Your task to perform on an android device: open a new tab in the chrome app Image 0: 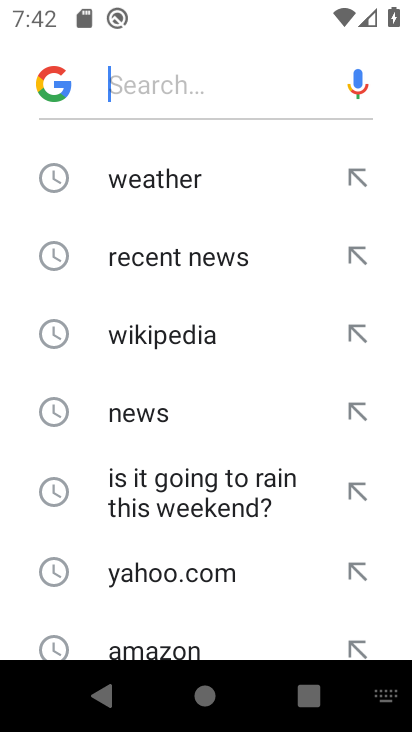
Step 0: press home button
Your task to perform on an android device: open a new tab in the chrome app Image 1: 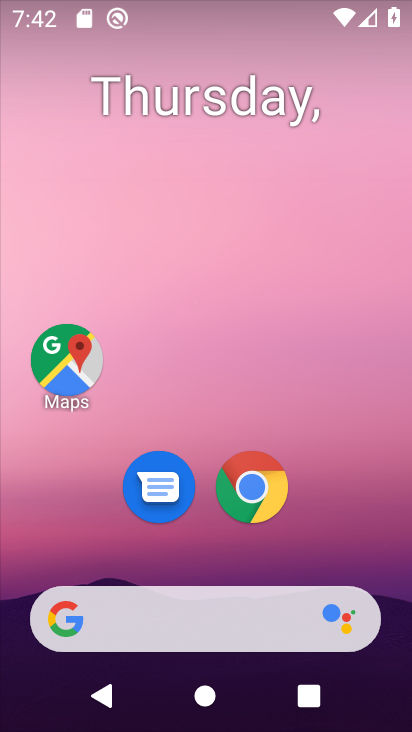
Step 1: click (257, 494)
Your task to perform on an android device: open a new tab in the chrome app Image 2: 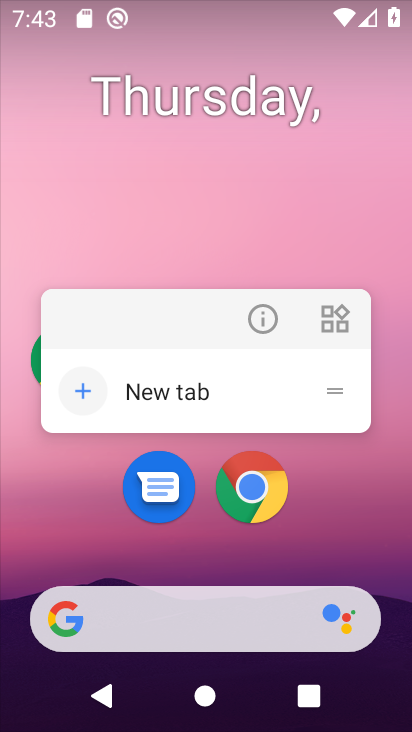
Step 2: click (258, 491)
Your task to perform on an android device: open a new tab in the chrome app Image 3: 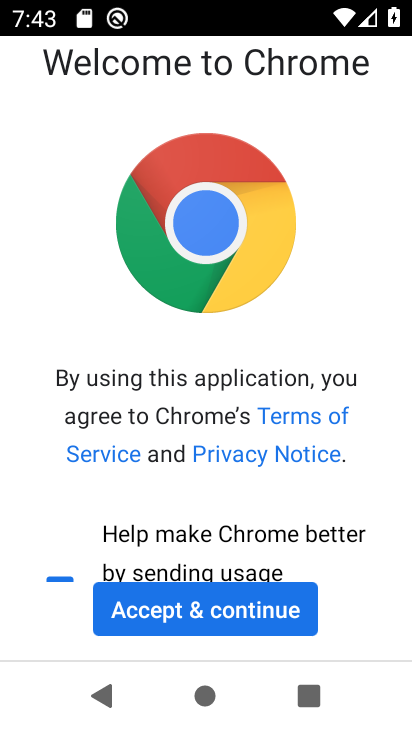
Step 3: click (195, 614)
Your task to perform on an android device: open a new tab in the chrome app Image 4: 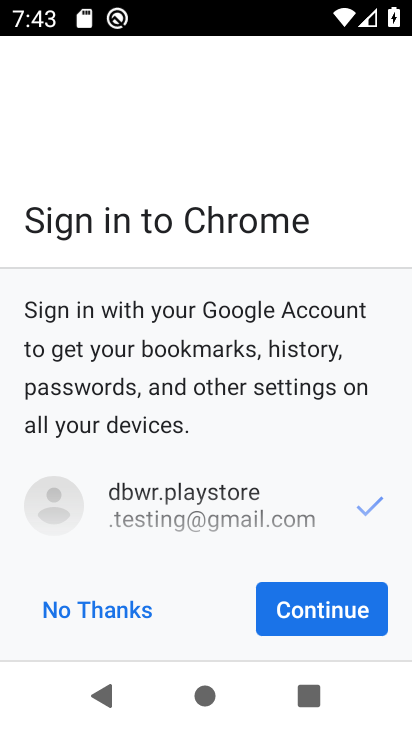
Step 4: click (333, 613)
Your task to perform on an android device: open a new tab in the chrome app Image 5: 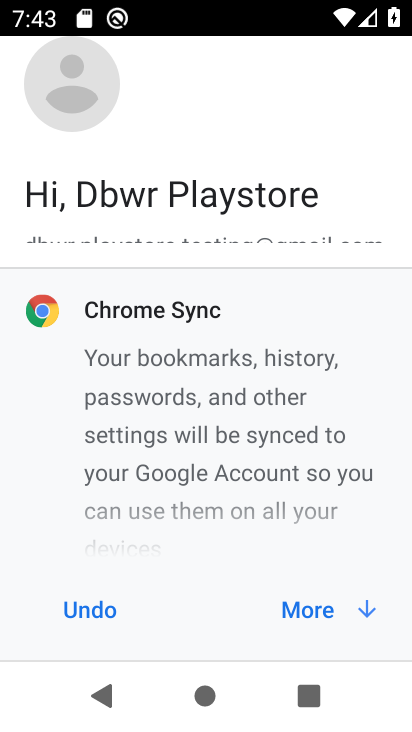
Step 5: click (344, 618)
Your task to perform on an android device: open a new tab in the chrome app Image 6: 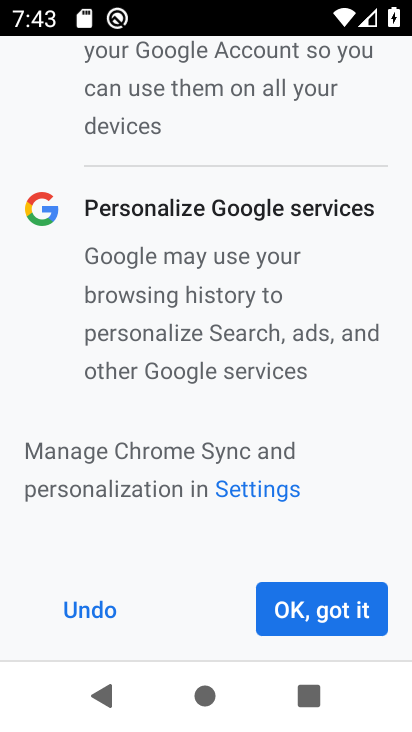
Step 6: click (319, 622)
Your task to perform on an android device: open a new tab in the chrome app Image 7: 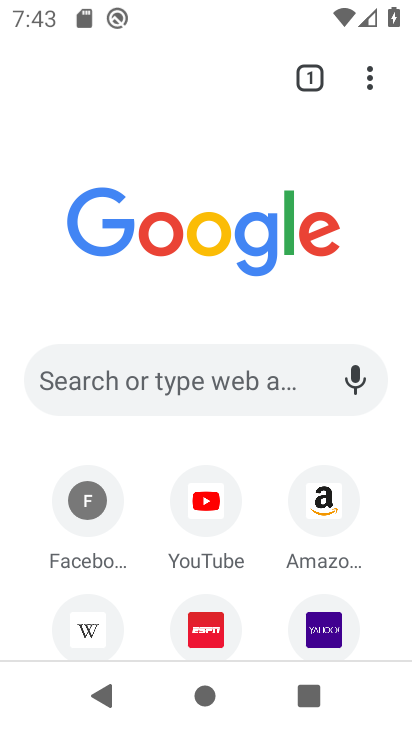
Step 7: task complete